Your task to perform on an android device: uninstall "Microsoft Outlook" Image 0: 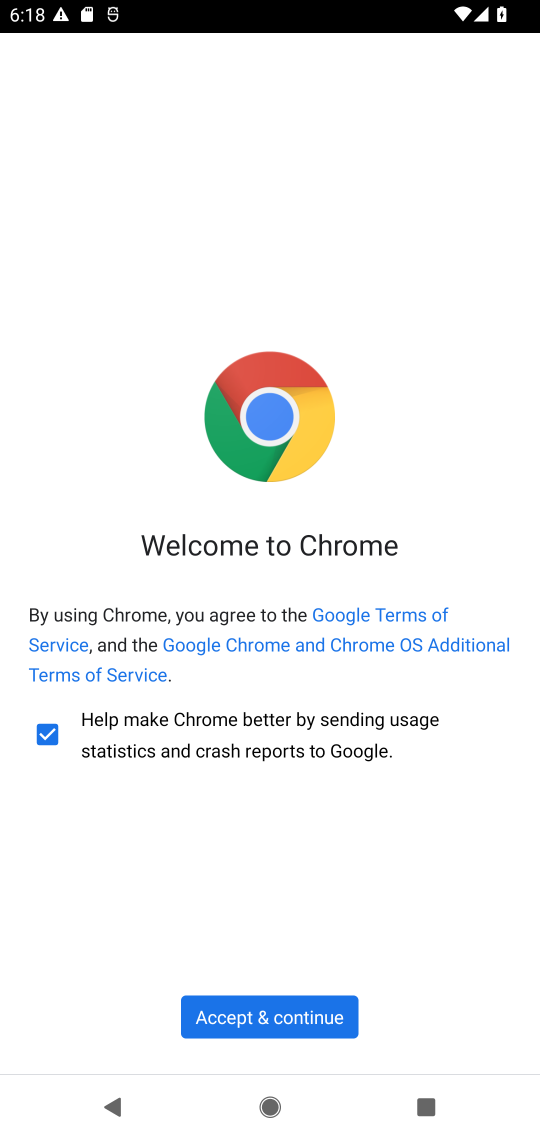
Step 0: press home button
Your task to perform on an android device: uninstall "Microsoft Outlook" Image 1: 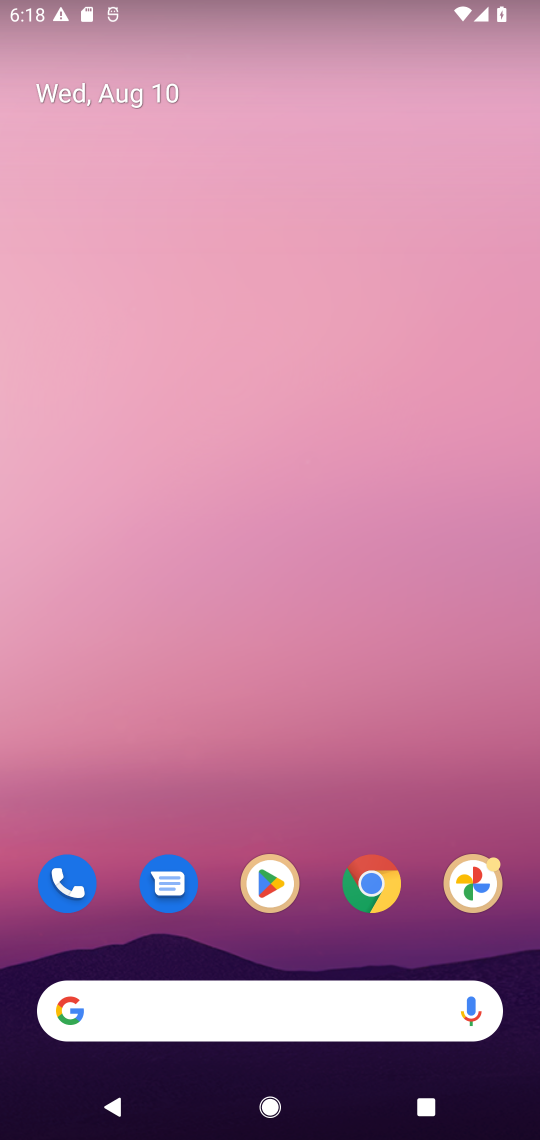
Step 1: drag from (296, 962) to (298, 262)
Your task to perform on an android device: uninstall "Microsoft Outlook" Image 2: 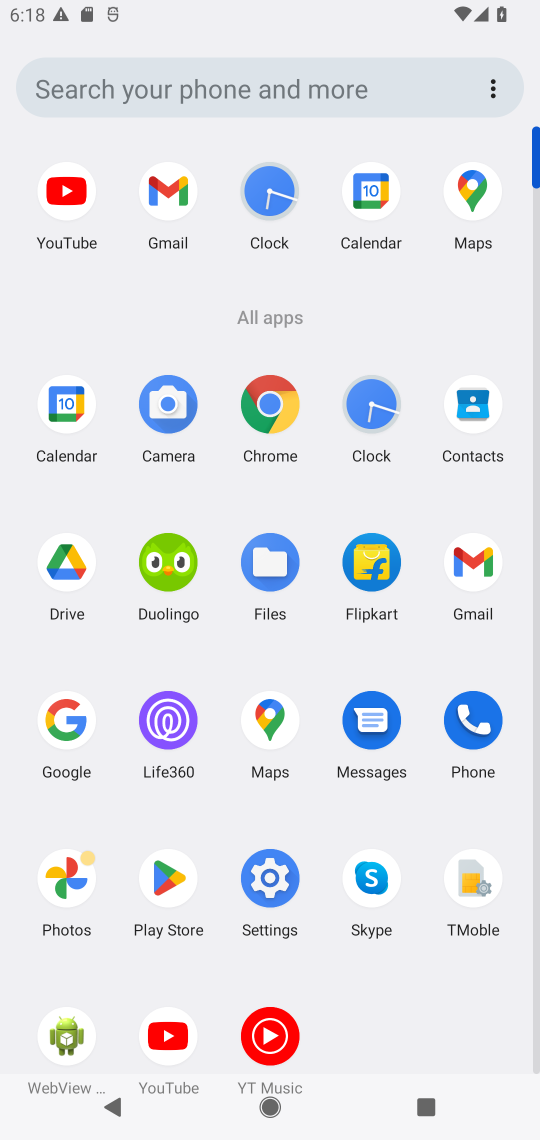
Step 2: click (174, 878)
Your task to perform on an android device: uninstall "Microsoft Outlook" Image 3: 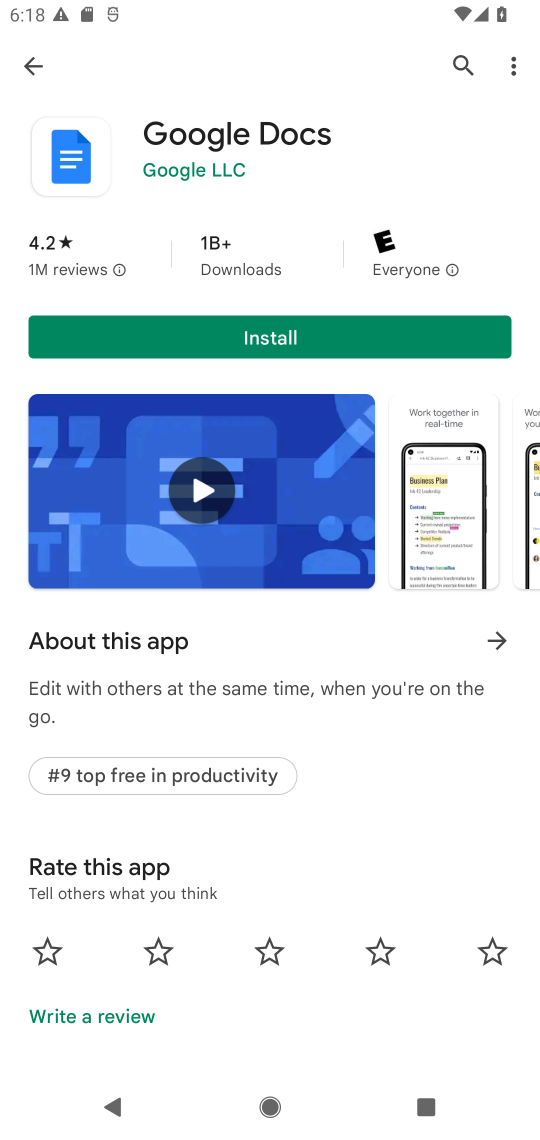
Step 3: click (457, 62)
Your task to perform on an android device: uninstall "Microsoft Outlook" Image 4: 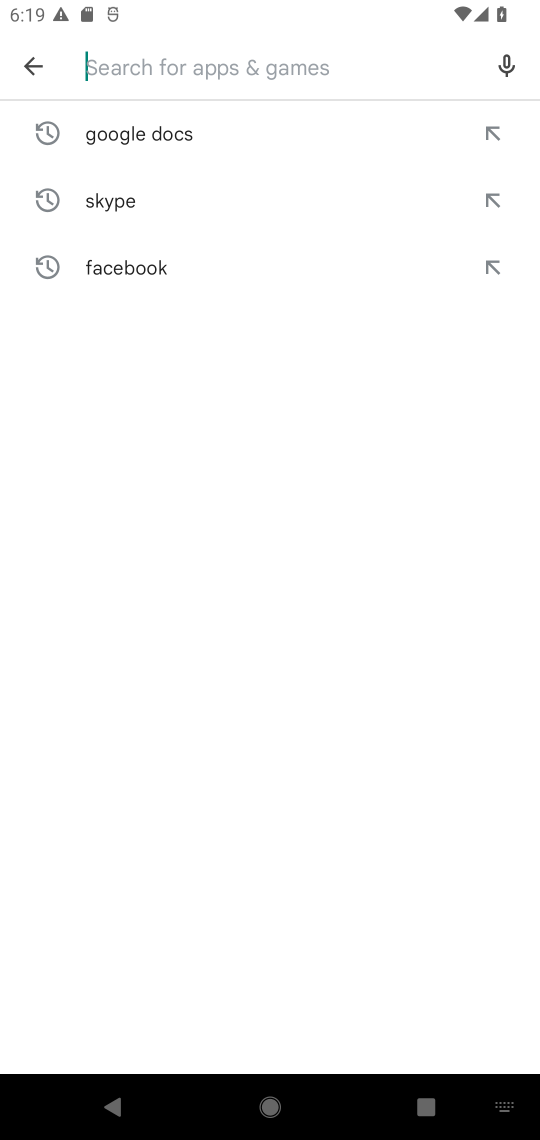
Step 4: type "Microsoft Outlook"
Your task to perform on an android device: uninstall "Microsoft Outlook" Image 5: 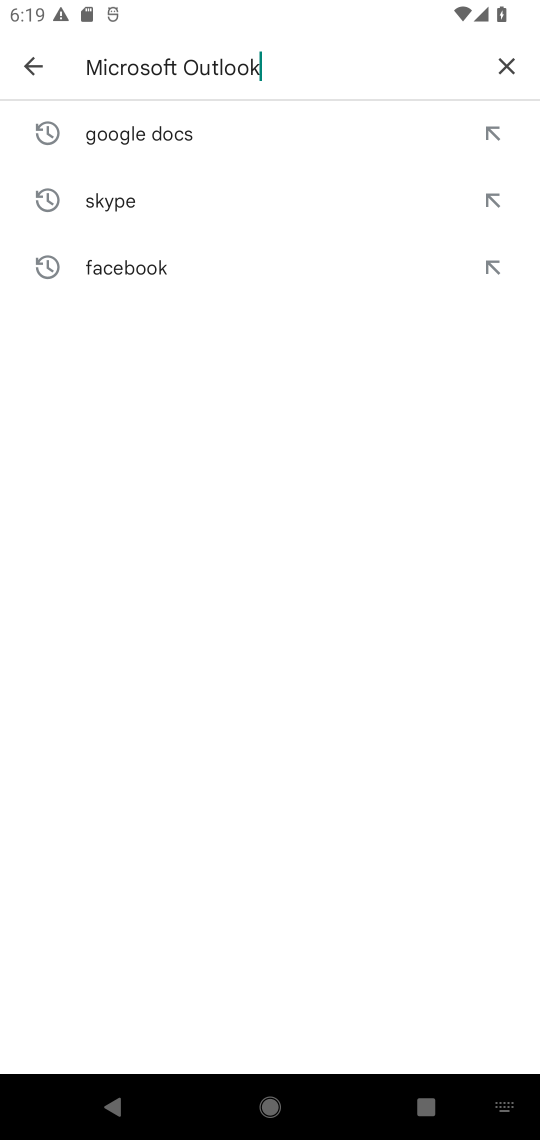
Step 5: type ""
Your task to perform on an android device: uninstall "Microsoft Outlook" Image 6: 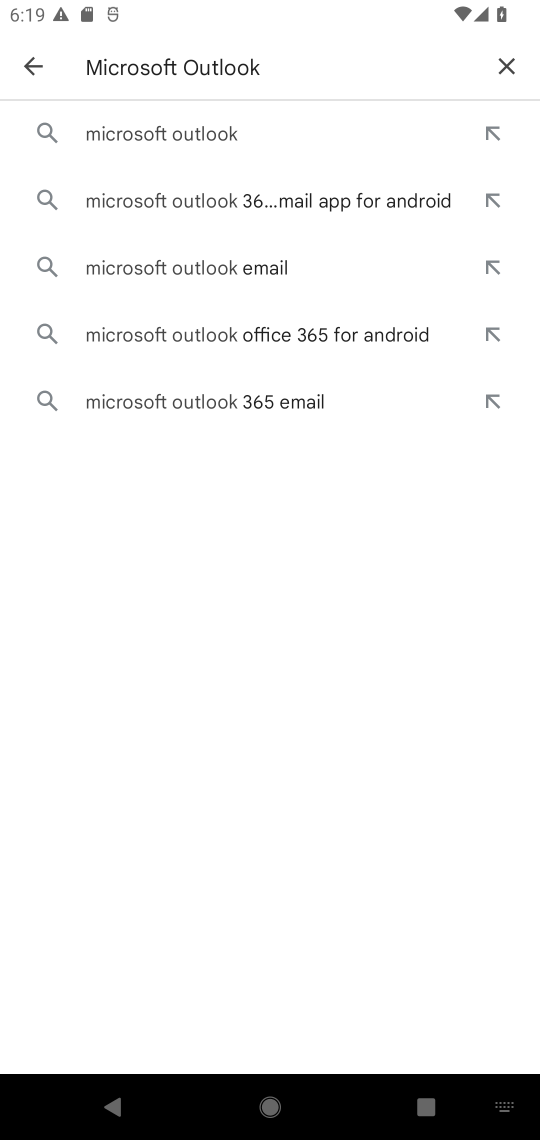
Step 6: click (186, 136)
Your task to perform on an android device: uninstall "Microsoft Outlook" Image 7: 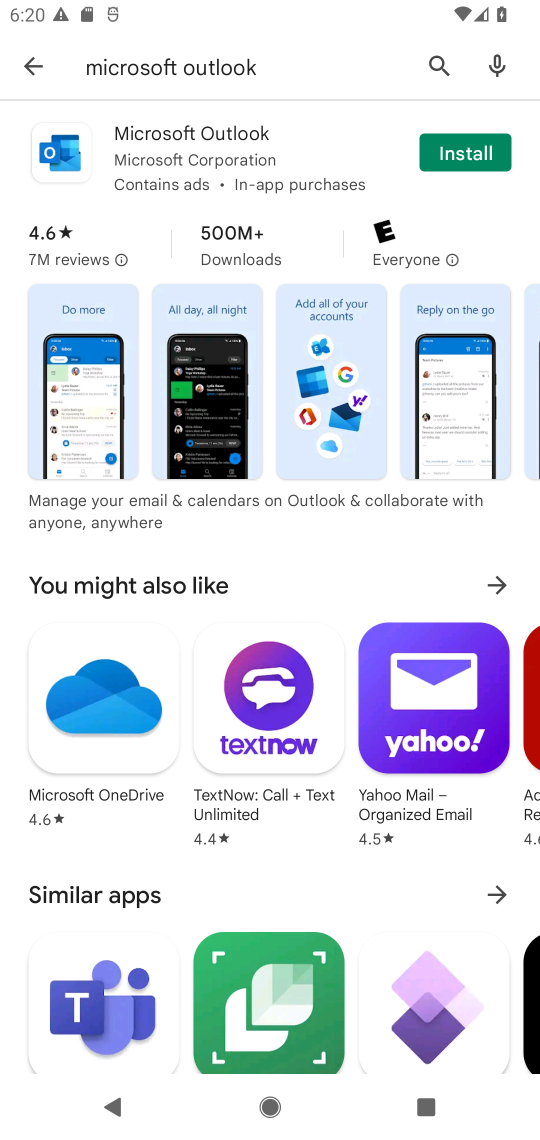
Step 7: task complete